Your task to perform on an android device: open chrome and create a bookmark for the current page Image 0: 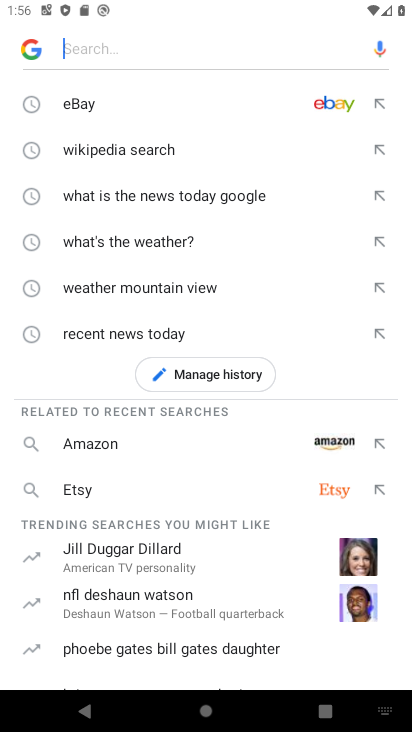
Step 0: press home button
Your task to perform on an android device: open chrome and create a bookmark for the current page Image 1: 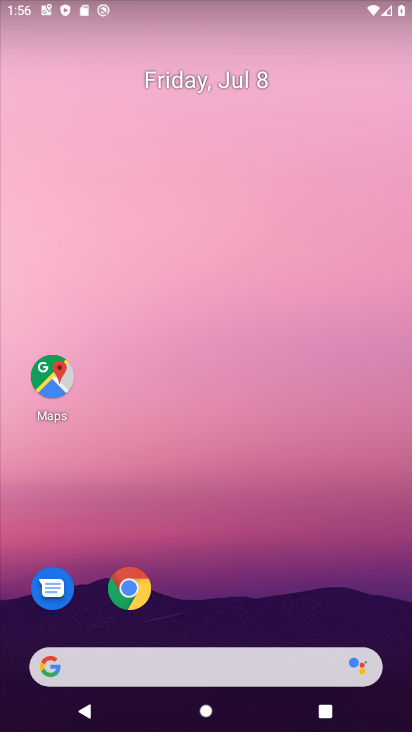
Step 1: drag from (246, 612) to (217, 111)
Your task to perform on an android device: open chrome and create a bookmark for the current page Image 2: 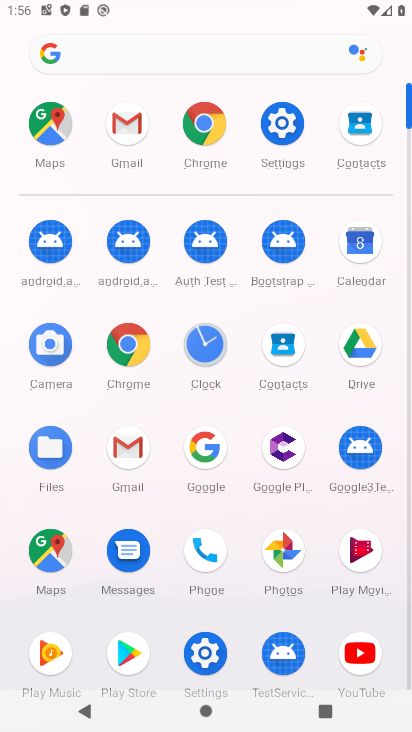
Step 2: click (206, 123)
Your task to perform on an android device: open chrome and create a bookmark for the current page Image 3: 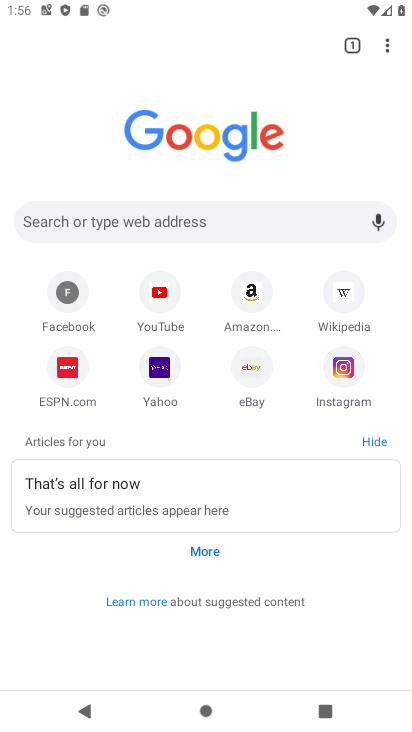
Step 3: task complete